Your task to perform on an android device: change the upload size in google photos Image 0: 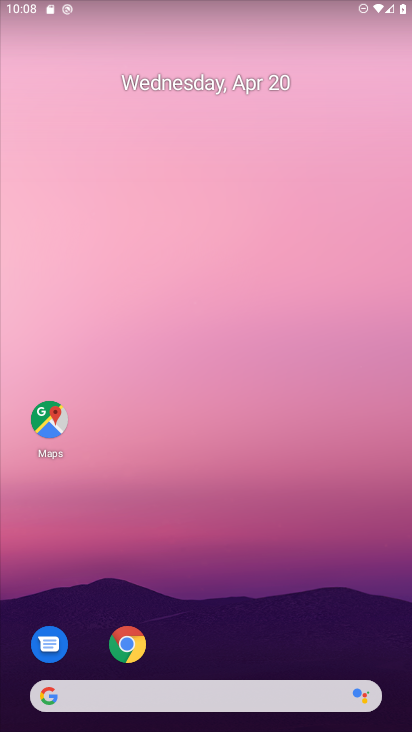
Step 0: drag from (332, 624) to (266, 57)
Your task to perform on an android device: change the upload size in google photos Image 1: 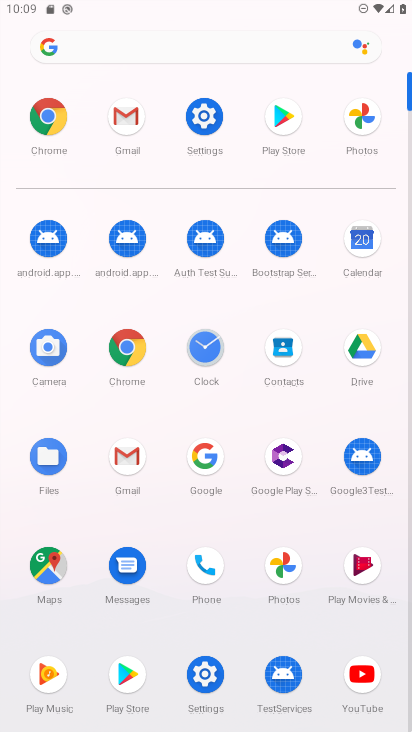
Step 1: click (269, 566)
Your task to perform on an android device: change the upload size in google photos Image 2: 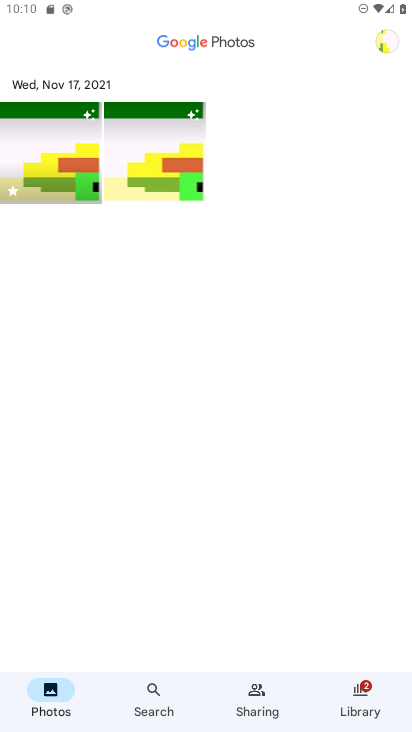
Step 2: click (387, 40)
Your task to perform on an android device: change the upload size in google photos Image 3: 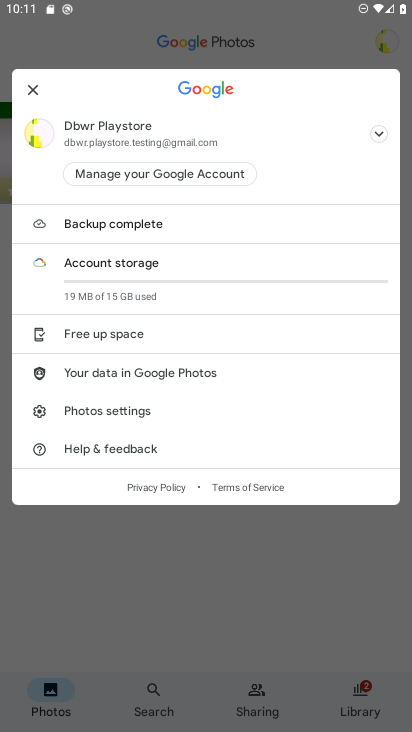
Step 3: click (156, 405)
Your task to perform on an android device: change the upload size in google photos Image 4: 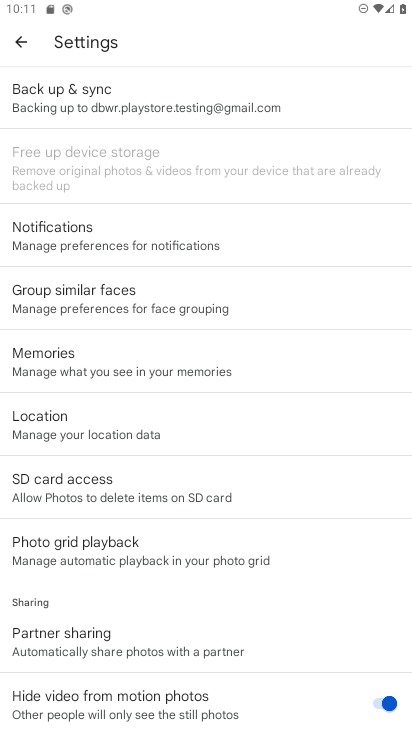
Step 4: click (183, 87)
Your task to perform on an android device: change the upload size in google photos Image 5: 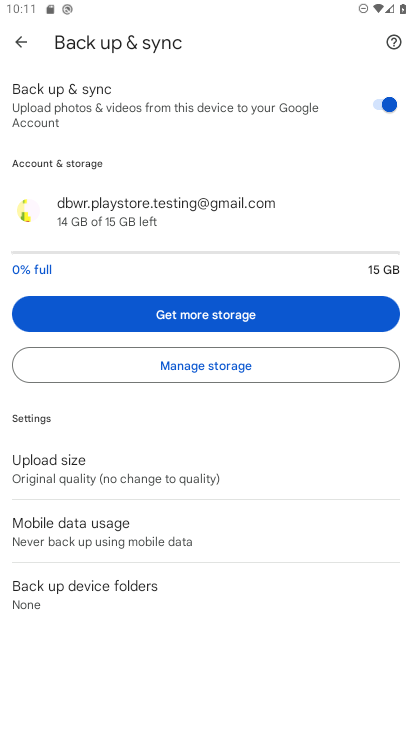
Step 5: click (106, 460)
Your task to perform on an android device: change the upload size in google photos Image 6: 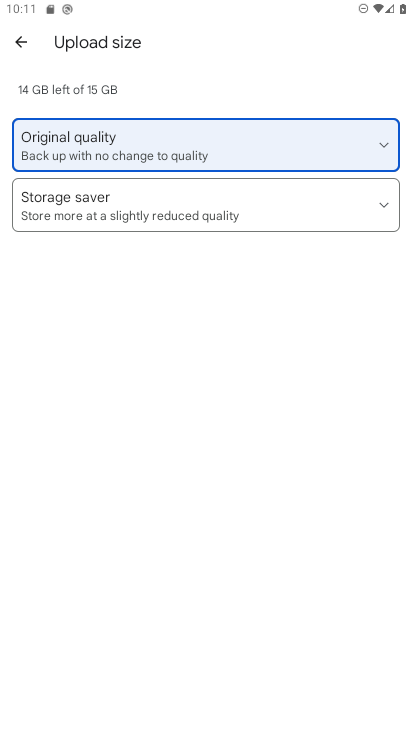
Step 6: click (372, 202)
Your task to perform on an android device: change the upload size in google photos Image 7: 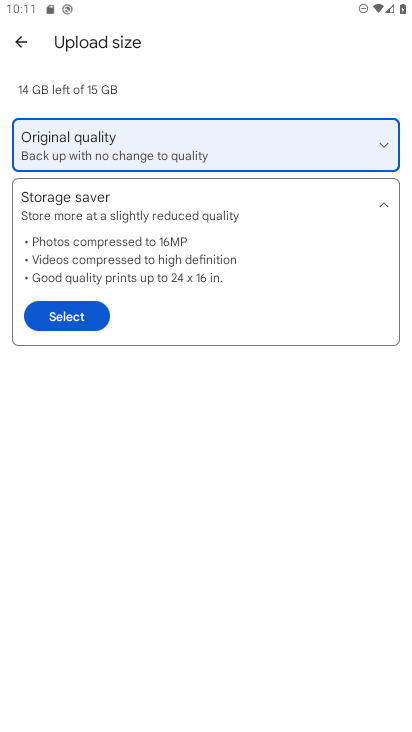
Step 7: click (88, 314)
Your task to perform on an android device: change the upload size in google photos Image 8: 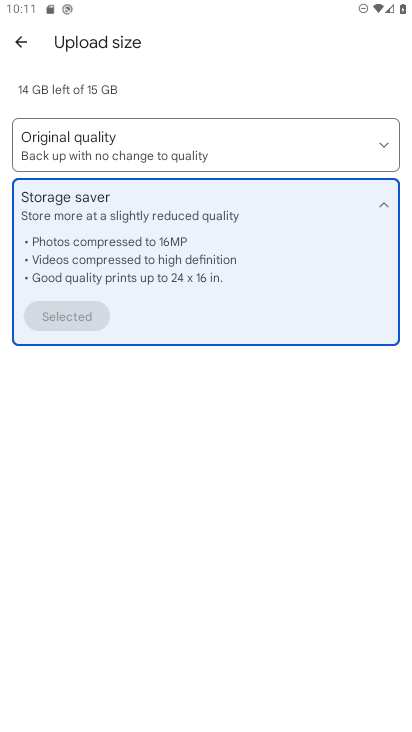
Step 8: task complete